Your task to perform on an android device: open wifi settings Image 0: 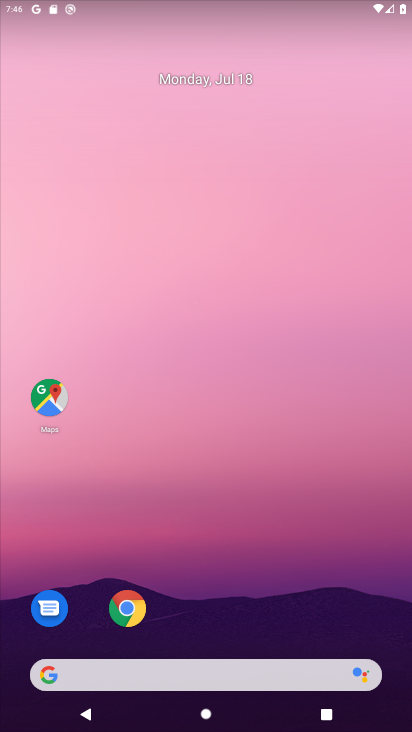
Step 0: drag from (182, 641) to (373, 588)
Your task to perform on an android device: open wifi settings Image 1: 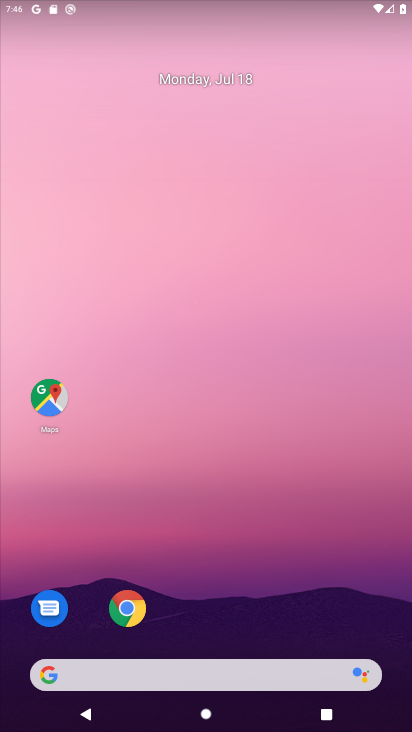
Step 1: click (276, 153)
Your task to perform on an android device: open wifi settings Image 2: 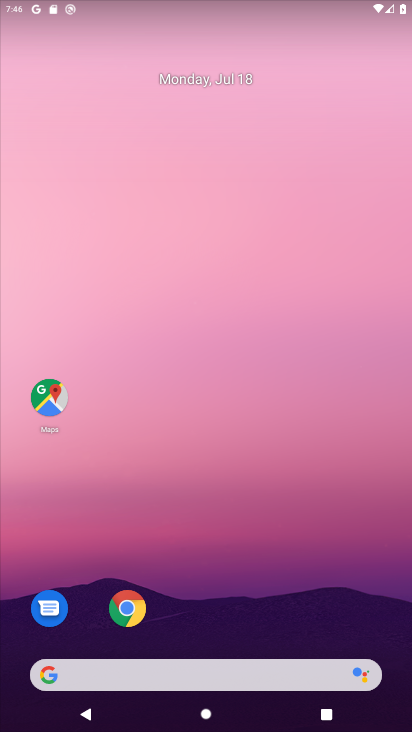
Step 2: drag from (218, 636) to (204, 6)
Your task to perform on an android device: open wifi settings Image 3: 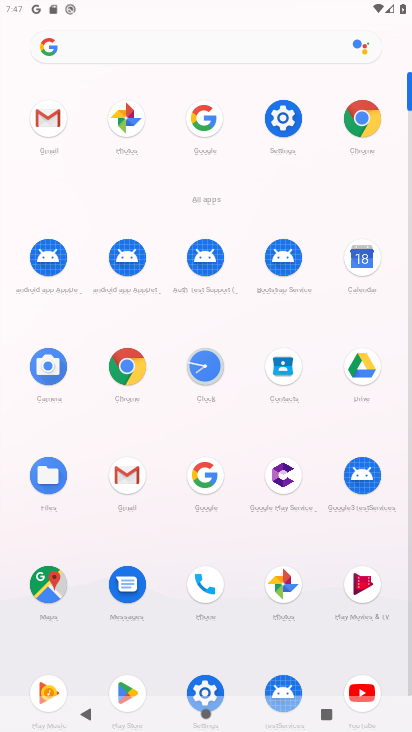
Step 3: click (276, 135)
Your task to perform on an android device: open wifi settings Image 4: 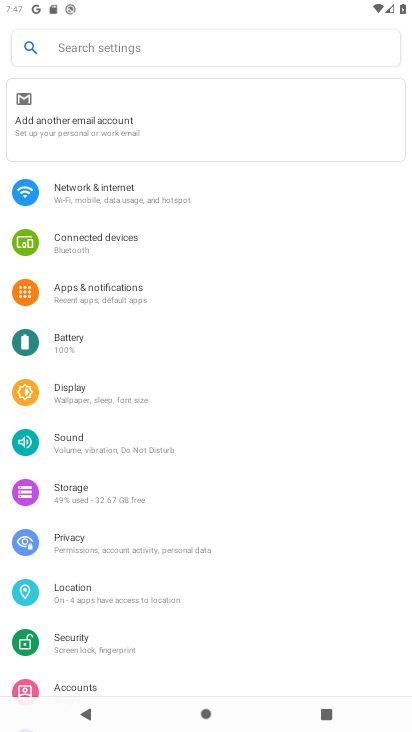
Step 4: click (204, 178)
Your task to perform on an android device: open wifi settings Image 5: 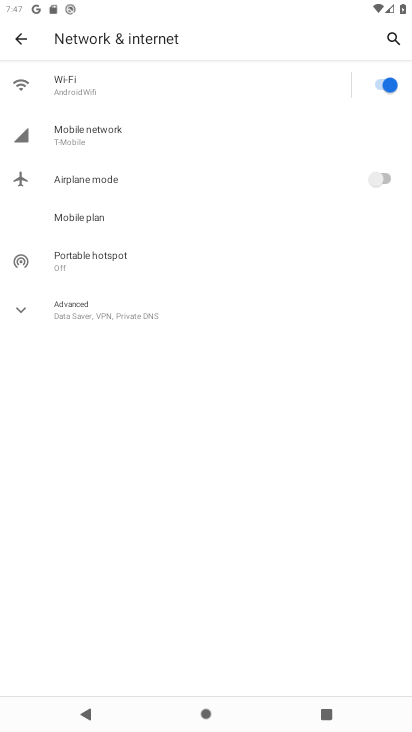
Step 5: click (130, 88)
Your task to perform on an android device: open wifi settings Image 6: 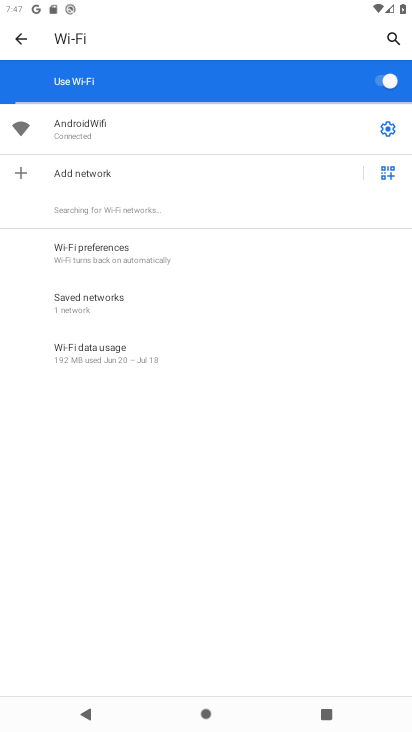
Step 6: task complete